Your task to perform on an android device: delete a single message in the gmail app Image 0: 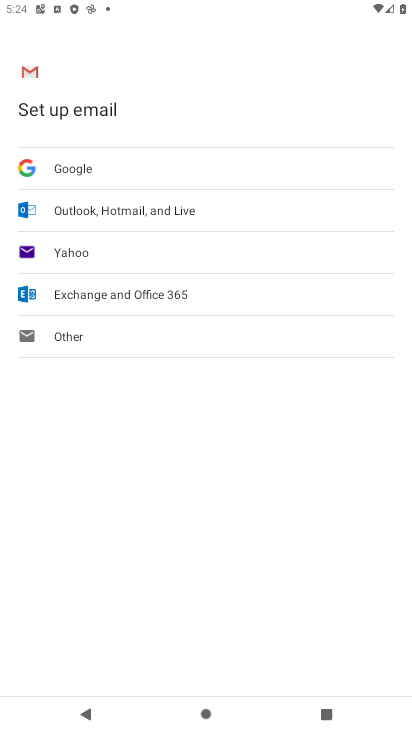
Step 0: press home button
Your task to perform on an android device: delete a single message in the gmail app Image 1: 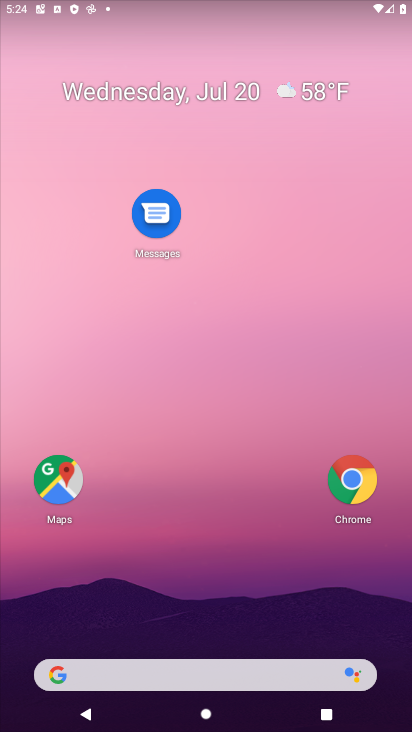
Step 1: drag from (189, 604) to (199, 24)
Your task to perform on an android device: delete a single message in the gmail app Image 2: 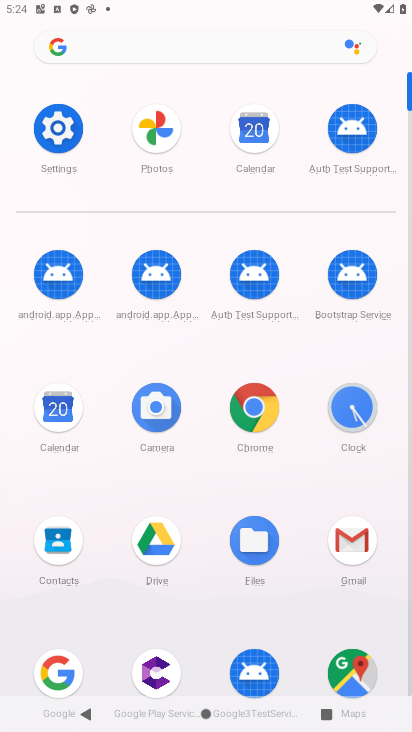
Step 2: click (352, 552)
Your task to perform on an android device: delete a single message in the gmail app Image 3: 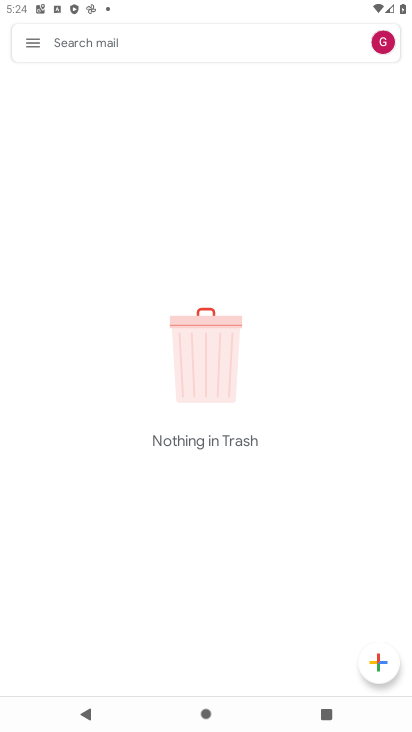
Step 3: click (27, 42)
Your task to perform on an android device: delete a single message in the gmail app Image 4: 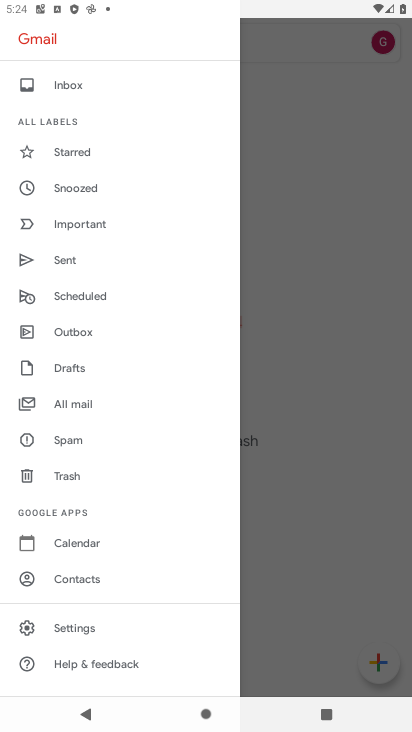
Step 4: click (35, 45)
Your task to perform on an android device: delete a single message in the gmail app Image 5: 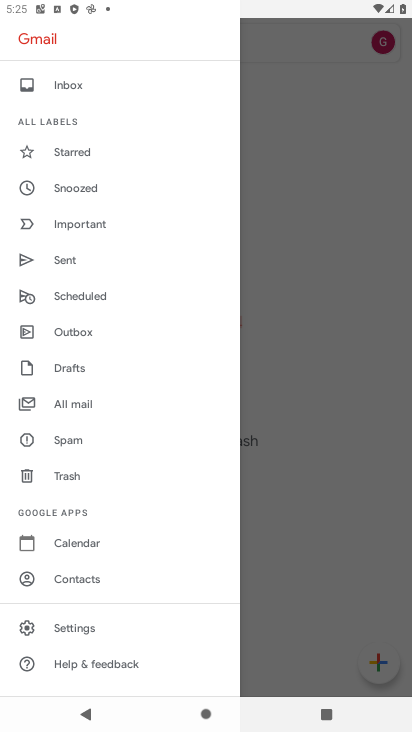
Step 5: click (76, 409)
Your task to perform on an android device: delete a single message in the gmail app Image 6: 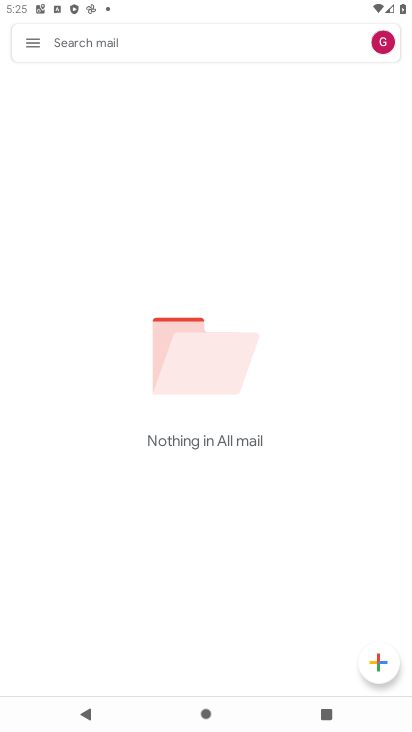
Step 6: click (89, 411)
Your task to perform on an android device: delete a single message in the gmail app Image 7: 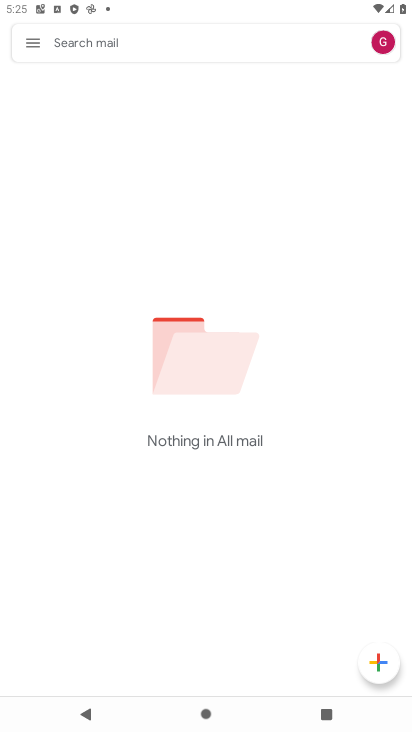
Step 7: task complete